Your task to perform on an android device: turn vacation reply on in the gmail app Image 0: 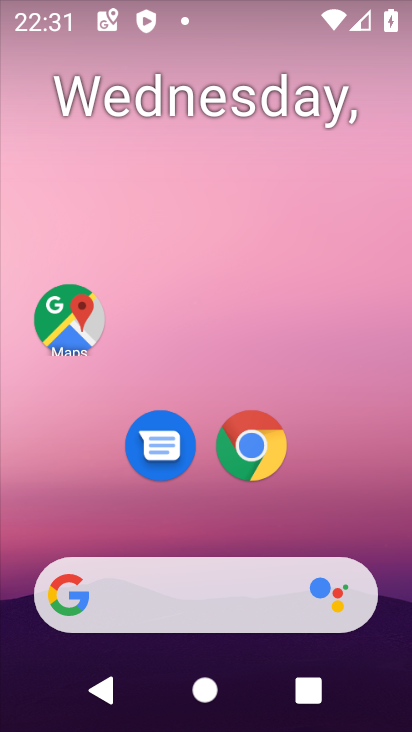
Step 0: drag from (302, 515) to (348, 178)
Your task to perform on an android device: turn vacation reply on in the gmail app Image 1: 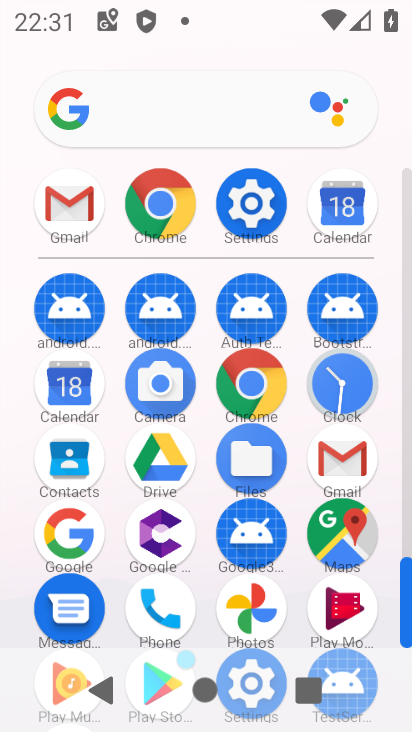
Step 1: click (343, 441)
Your task to perform on an android device: turn vacation reply on in the gmail app Image 2: 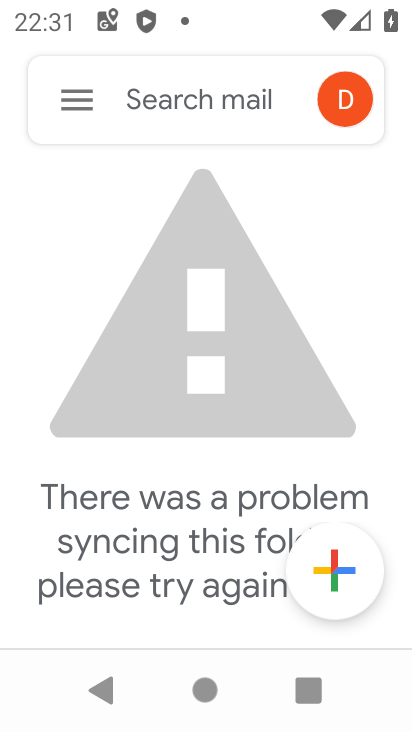
Step 2: click (61, 89)
Your task to perform on an android device: turn vacation reply on in the gmail app Image 3: 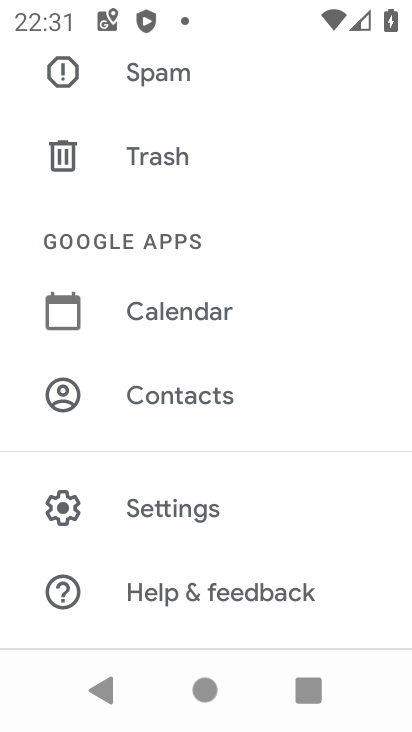
Step 3: click (222, 502)
Your task to perform on an android device: turn vacation reply on in the gmail app Image 4: 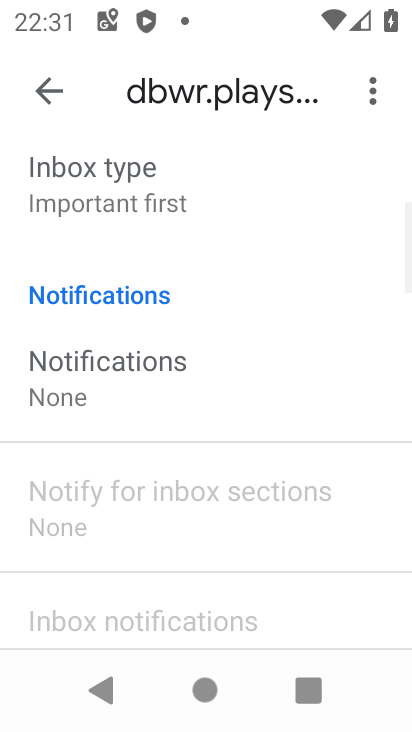
Step 4: drag from (152, 555) to (235, 178)
Your task to perform on an android device: turn vacation reply on in the gmail app Image 5: 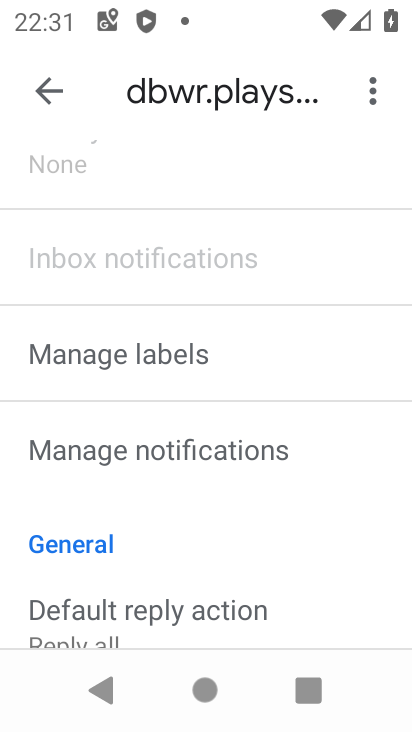
Step 5: drag from (176, 550) to (270, 173)
Your task to perform on an android device: turn vacation reply on in the gmail app Image 6: 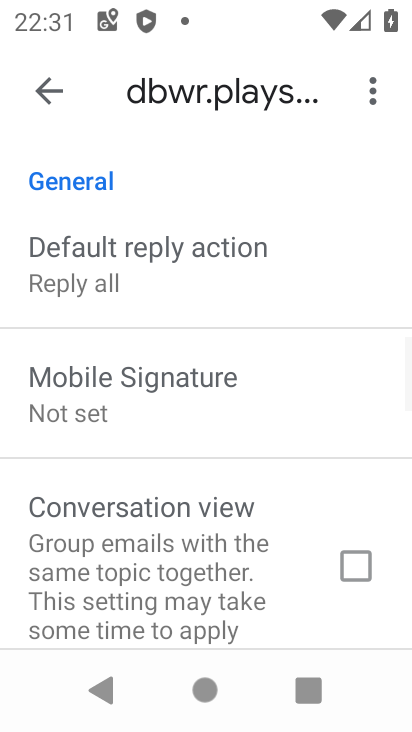
Step 6: drag from (211, 558) to (274, 222)
Your task to perform on an android device: turn vacation reply on in the gmail app Image 7: 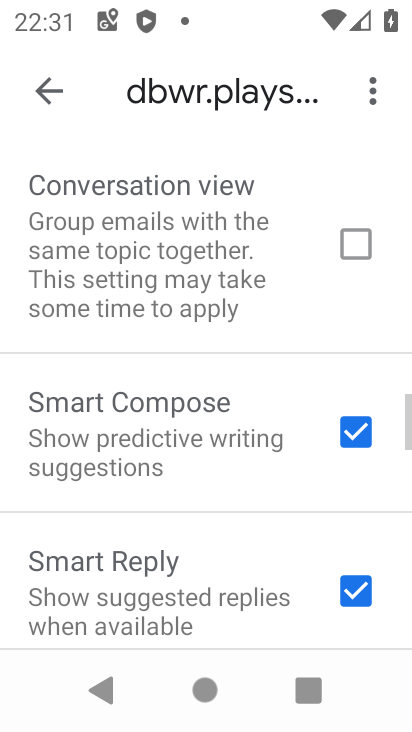
Step 7: drag from (163, 535) to (231, 254)
Your task to perform on an android device: turn vacation reply on in the gmail app Image 8: 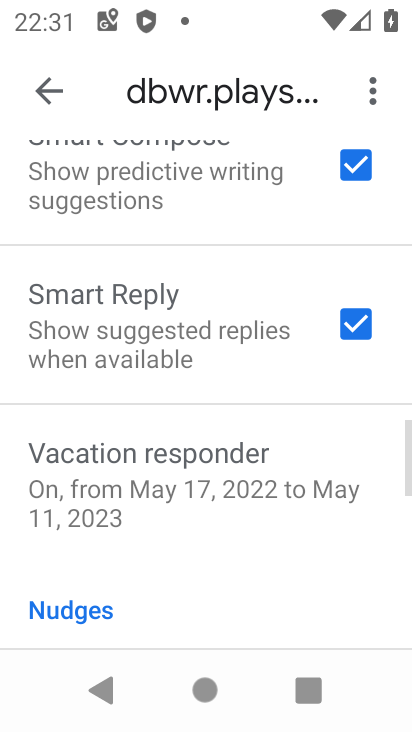
Step 8: click (152, 490)
Your task to perform on an android device: turn vacation reply on in the gmail app Image 9: 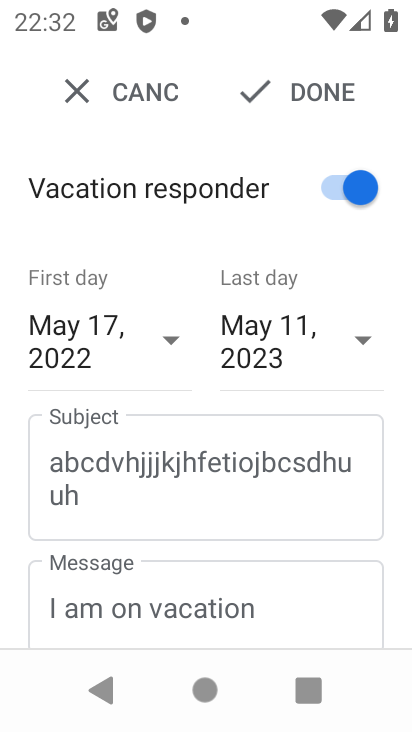
Step 9: click (292, 83)
Your task to perform on an android device: turn vacation reply on in the gmail app Image 10: 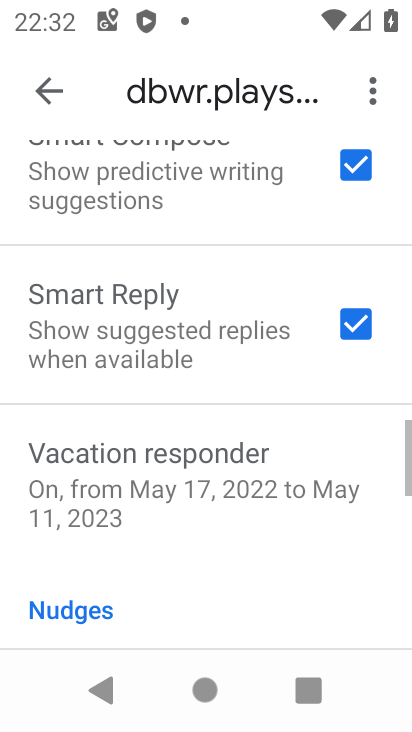
Step 10: task complete